Your task to perform on an android device: open chrome privacy settings Image 0: 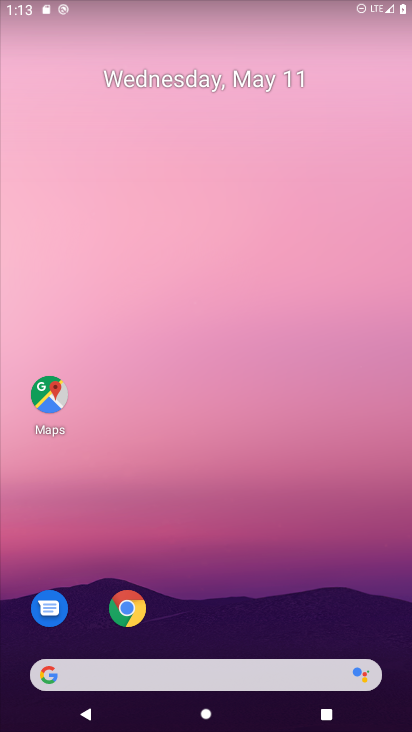
Step 0: drag from (151, 615) to (162, 95)
Your task to perform on an android device: open chrome privacy settings Image 1: 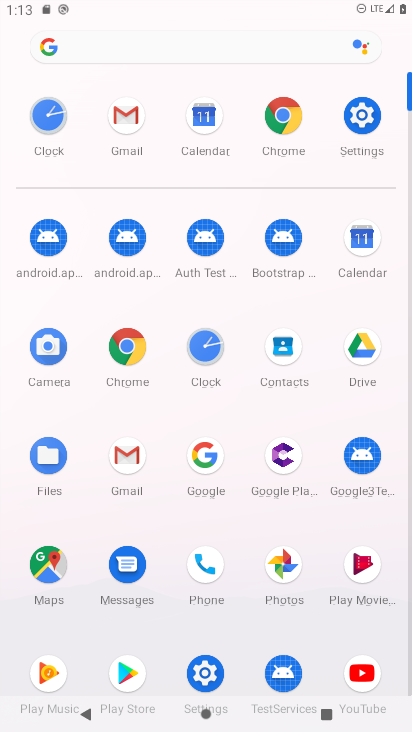
Step 1: click (284, 116)
Your task to perform on an android device: open chrome privacy settings Image 2: 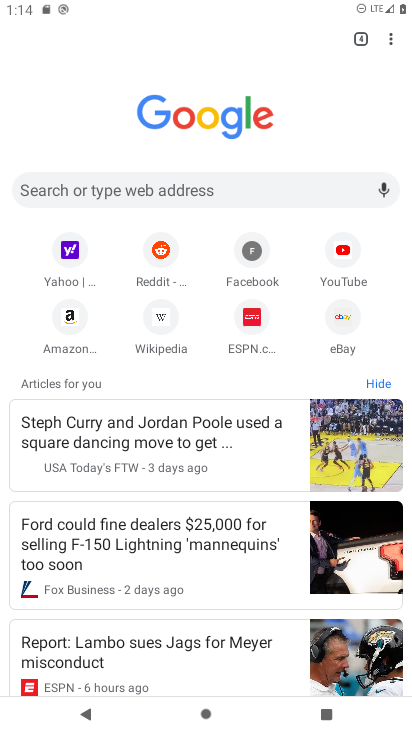
Step 2: click (387, 38)
Your task to perform on an android device: open chrome privacy settings Image 3: 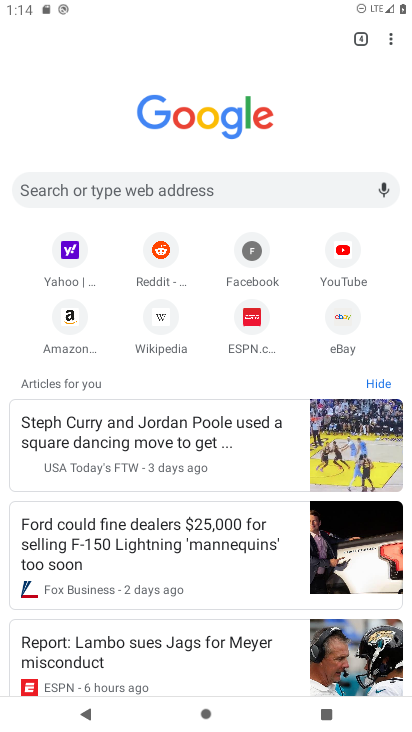
Step 3: click (387, 38)
Your task to perform on an android device: open chrome privacy settings Image 4: 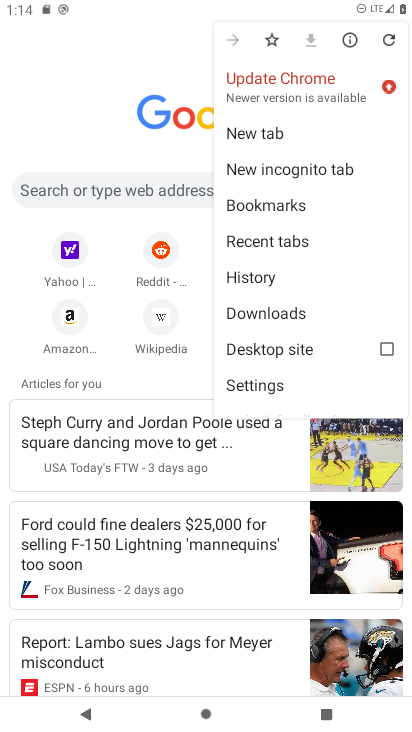
Step 4: click (297, 379)
Your task to perform on an android device: open chrome privacy settings Image 5: 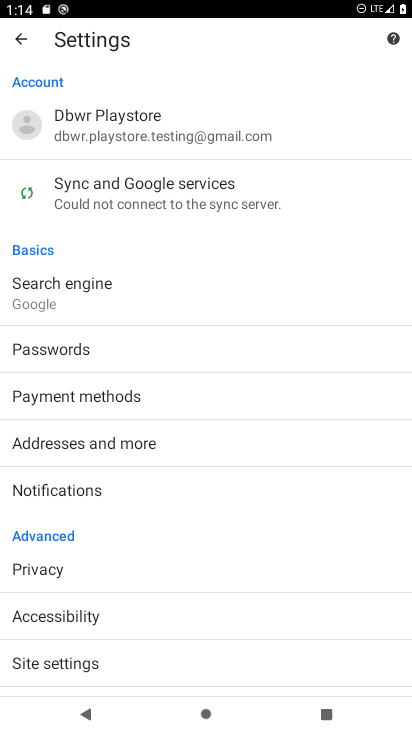
Step 5: click (63, 573)
Your task to perform on an android device: open chrome privacy settings Image 6: 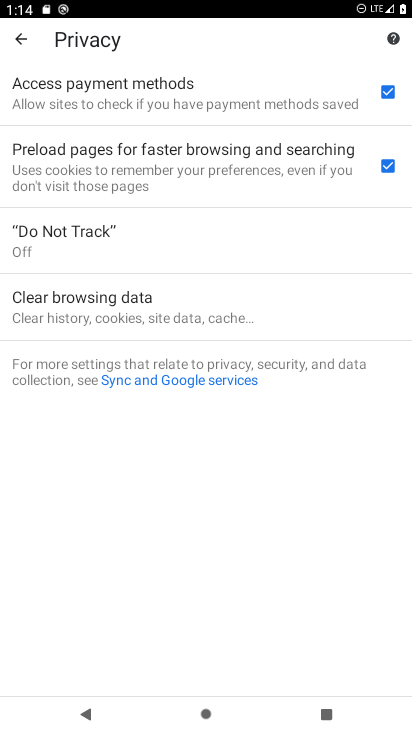
Step 6: task complete